Your task to perform on an android device: Go to Yahoo.com Image 0: 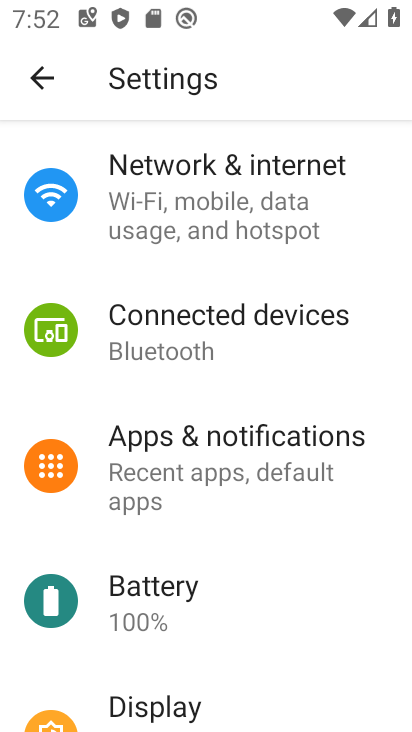
Step 0: press home button
Your task to perform on an android device: Go to Yahoo.com Image 1: 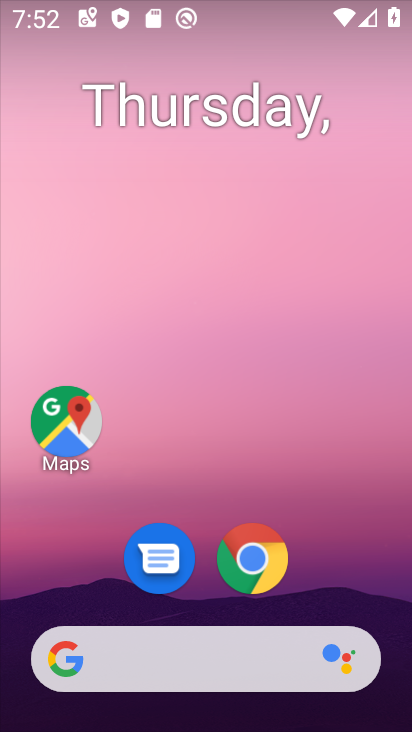
Step 1: click (253, 559)
Your task to perform on an android device: Go to Yahoo.com Image 2: 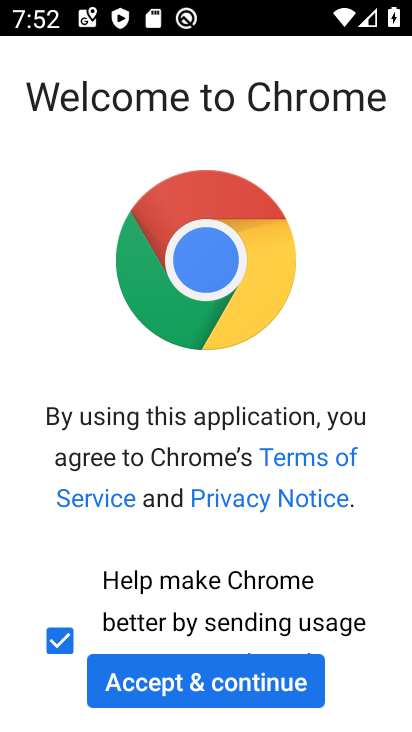
Step 2: click (248, 672)
Your task to perform on an android device: Go to Yahoo.com Image 3: 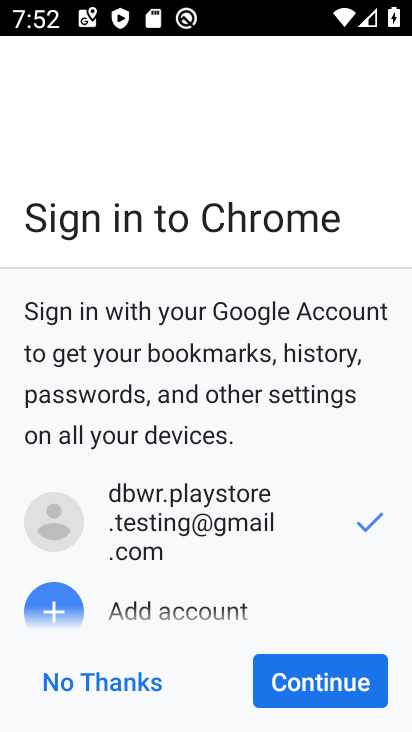
Step 3: click (290, 690)
Your task to perform on an android device: Go to Yahoo.com Image 4: 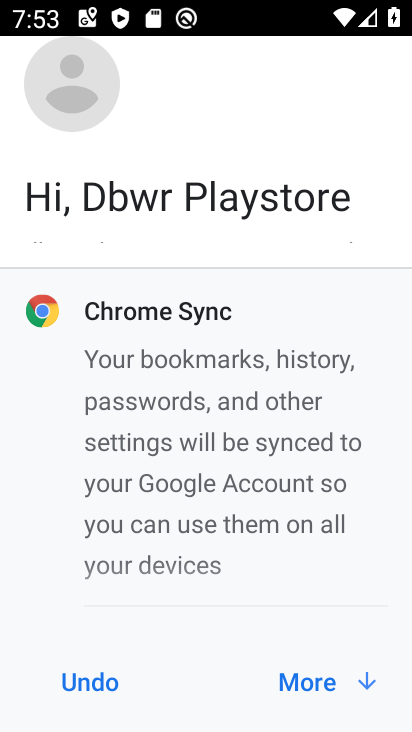
Step 4: click (307, 678)
Your task to perform on an android device: Go to Yahoo.com Image 5: 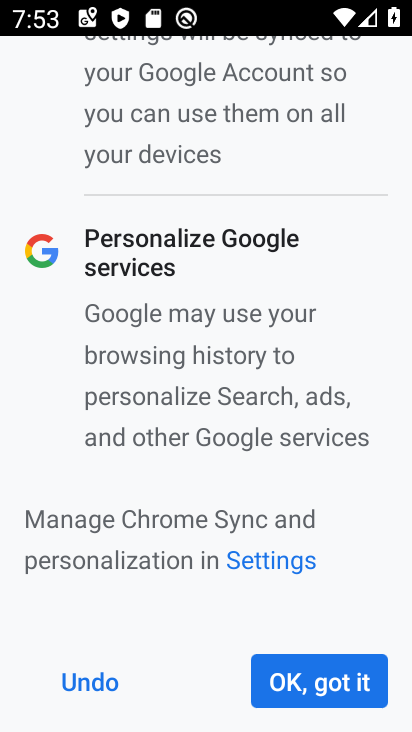
Step 5: click (307, 678)
Your task to perform on an android device: Go to Yahoo.com Image 6: 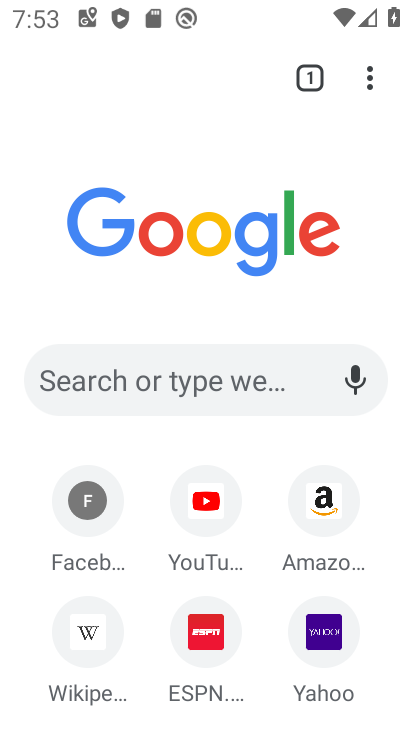
Step 6: click (327, 632)
Your task to perform on an android device: Go to Yahoo.com Image 7: 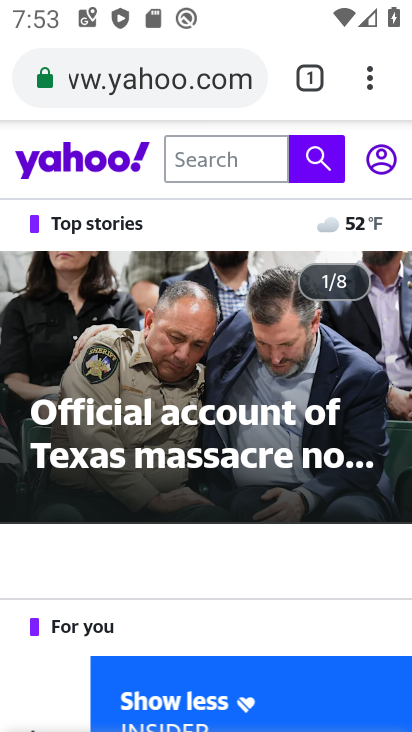
Step 7: task complete